Your task to perform on an android device: Open Maps and search for coffee Image 0: 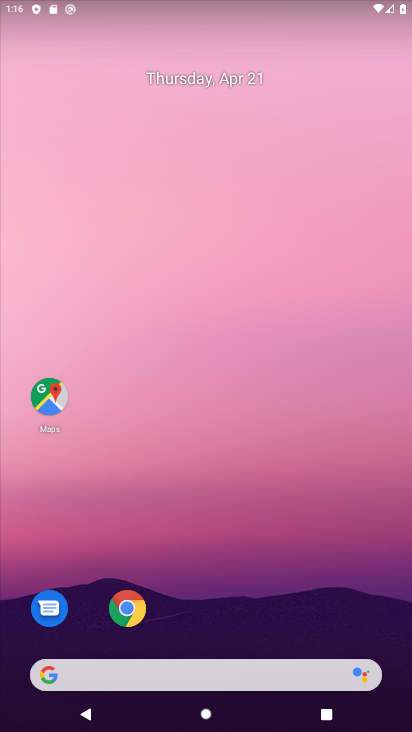
Step 0: click (299, 145)
Your task to perform on an android device: Open Maps and search for coffee Image 1: 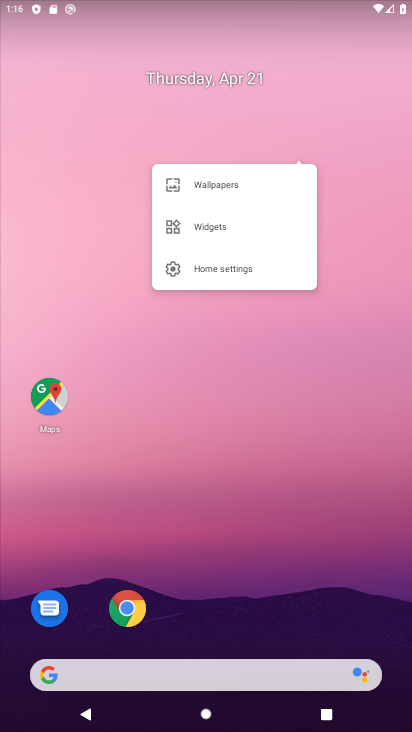
Step 1: click (48, 402)
Your task to perform on an android device: Open Maps and search for coffee Image 2: 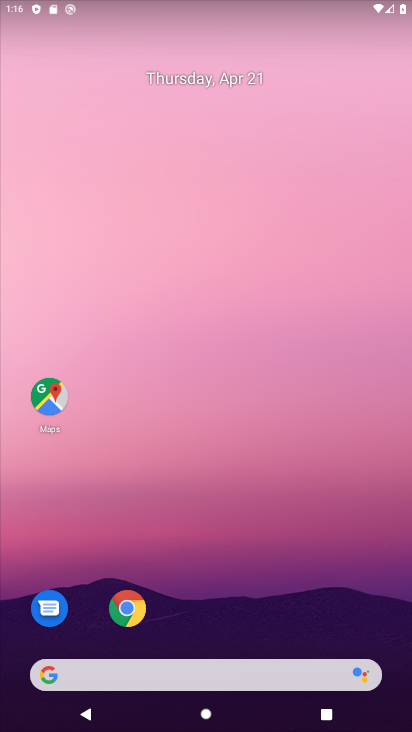
Step 2: click (48, 400)
Your task to perform on an android device: Open Maps and search for coffee Image 3: 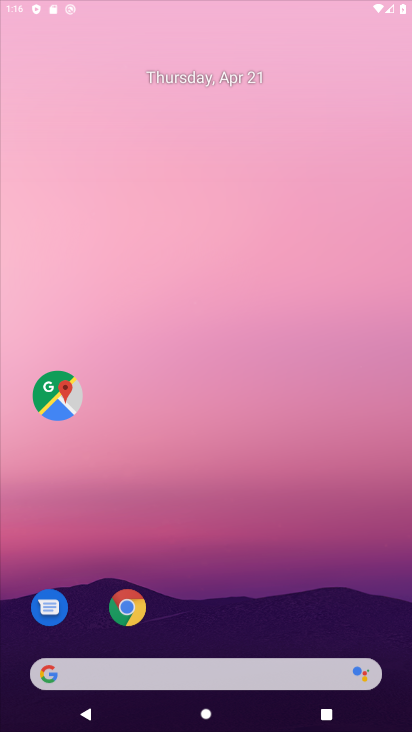
Step 3: click (49, 399)
Your task to perform on an android device: Open Maps and search for coffee Image 4: 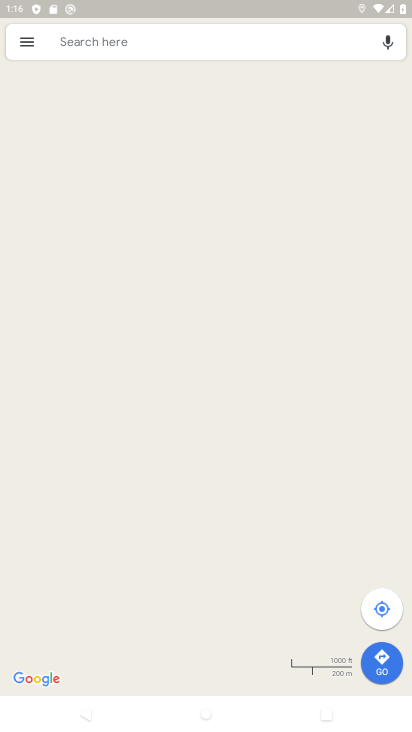
Step 4: click (226, 31)
Your task to perform on an android device: Open Maps and search for coffee Image 5: 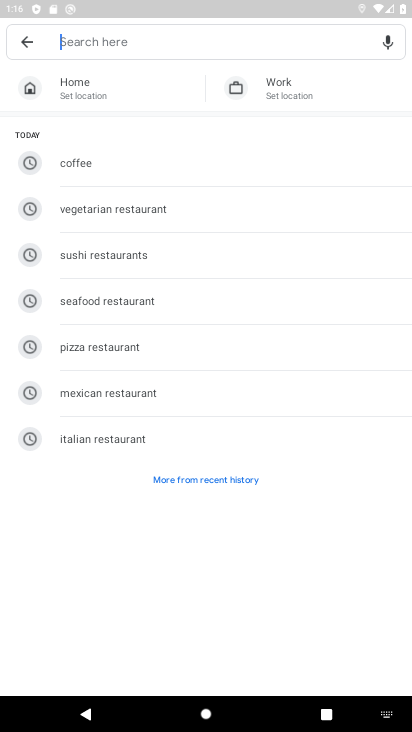
Step 5: click (68, 162)
Your task to perform on an android device: Open Maps and search for coffee Image 6: 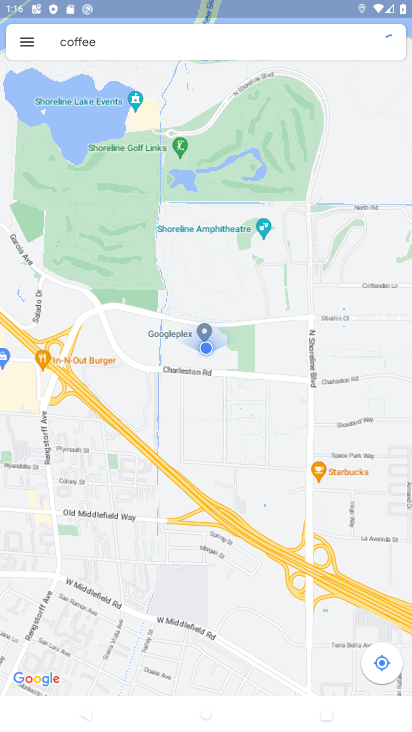
Step 6: task complete